Your task to perform on an android device: turn on airplane mode Image 0: 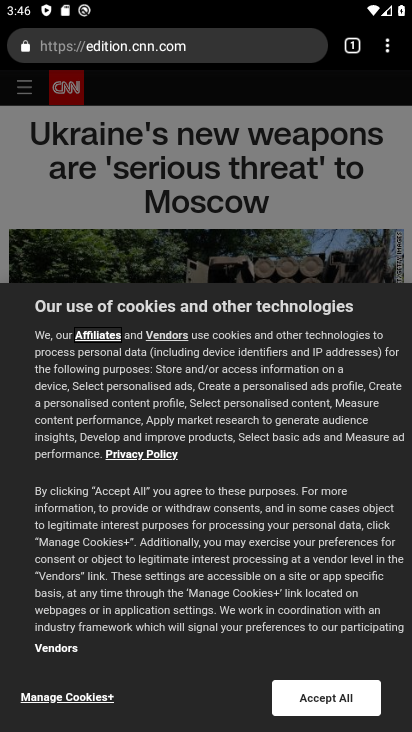
Step 0: press home button
Your task to perform on an android device: turn on airplane mode Image 1: 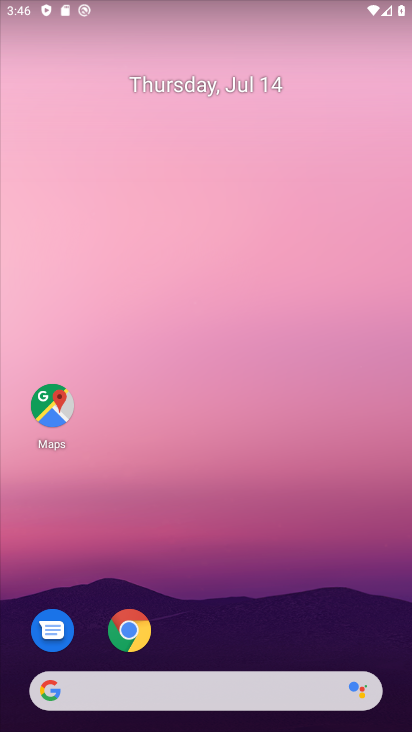
Step 1: drag from (249, 3) to (228, 652)
Your task to perform on an android device: turn on airplane mode Image 2: 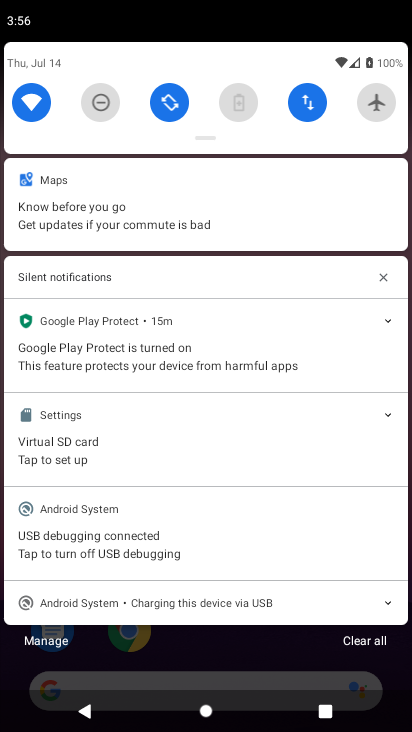
Step 2: drag from (243, 129) to (193, 721)
Your task to perform on an android device: turn on airplane mode Image 3: 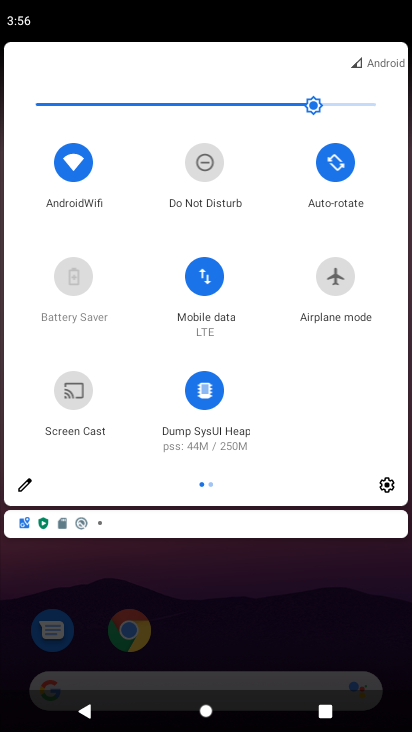
Step 3: click (337, 276)
Your task to perform on an android device: turn on airplane mode Image 4: 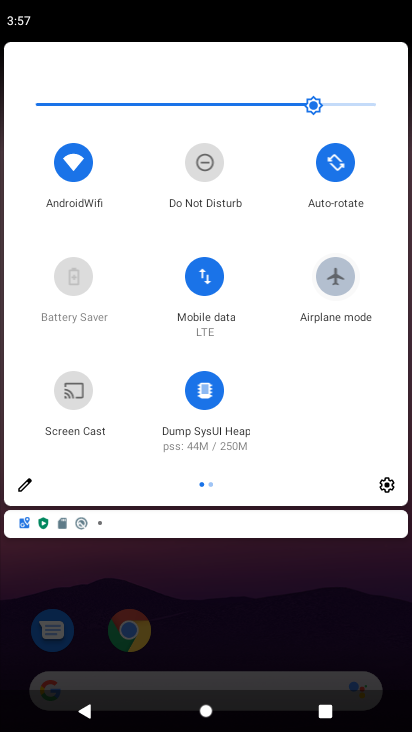
Step 4: task complete